Your task to perform on an android device: star an email in the gmail app Image 0: 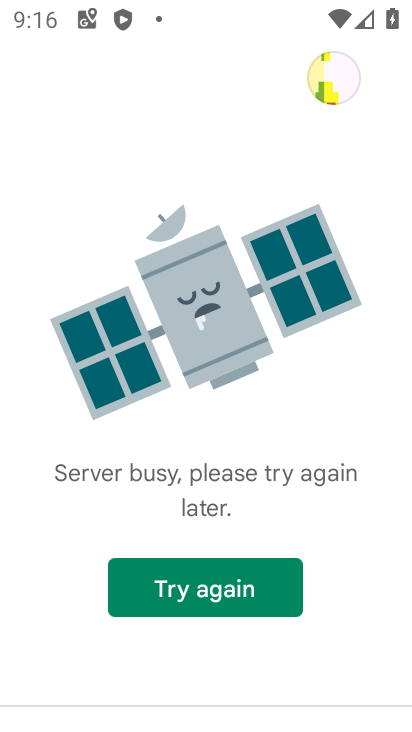
Step 0: press home button
Your task to perform on an android device: star an email in the gmail app Image 1: 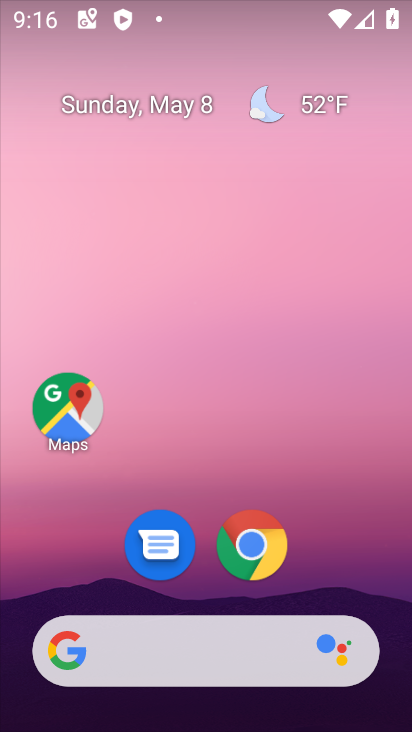
Step 1: drag from (203, 599) to (385, 34)
Your task to perform on an android device: star an email in the gmail app Image 2: 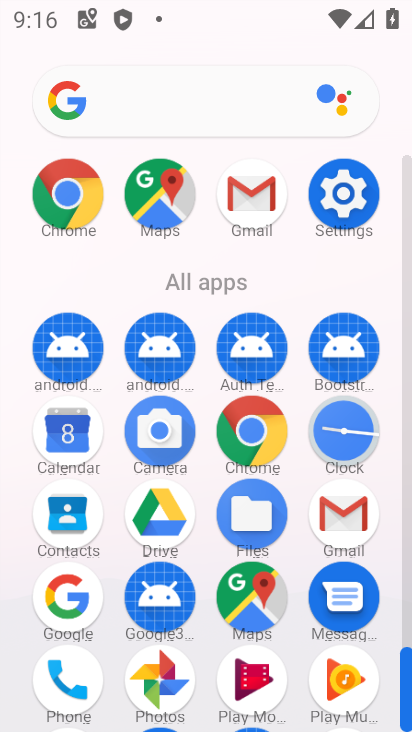
Step 2: click (353, 508)
Your task to perform on an android device: star an email in the gmail app Image 3: 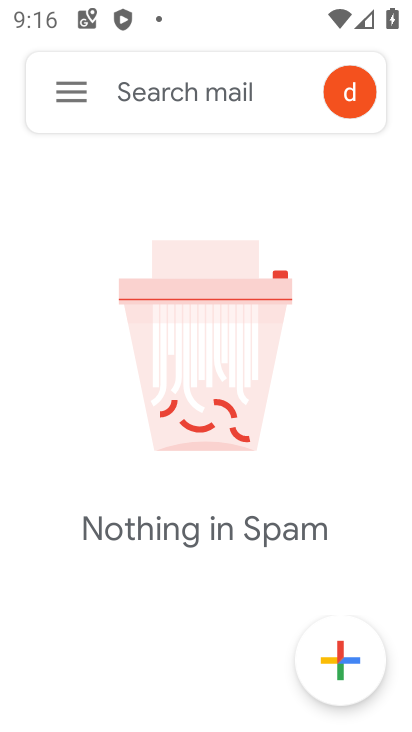
Step 3: click (57, 77)
Your task to perform on an android device: star an email in the gmail app Image 4: 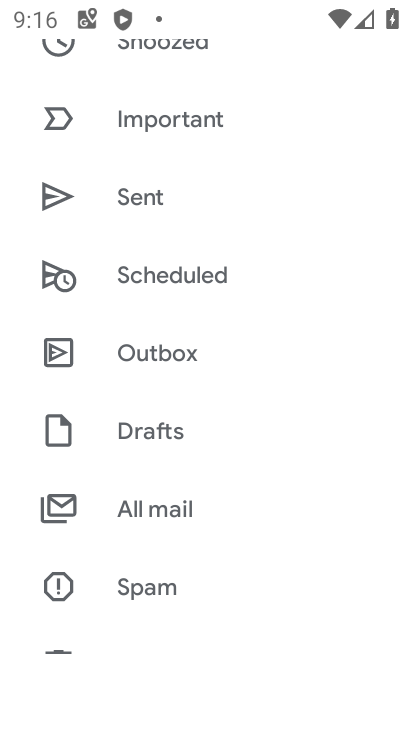
Step 4: drag from (147, 92) to (150, 697)
Your task to perform on an android device: star an email in the gmail app Image 5: 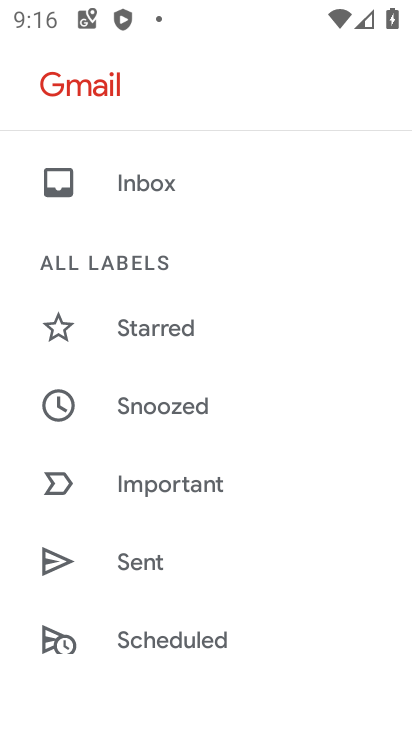
Step 5: click (136, 203)
Your task to perform on an android device: star an email in the gmail app Image 6: 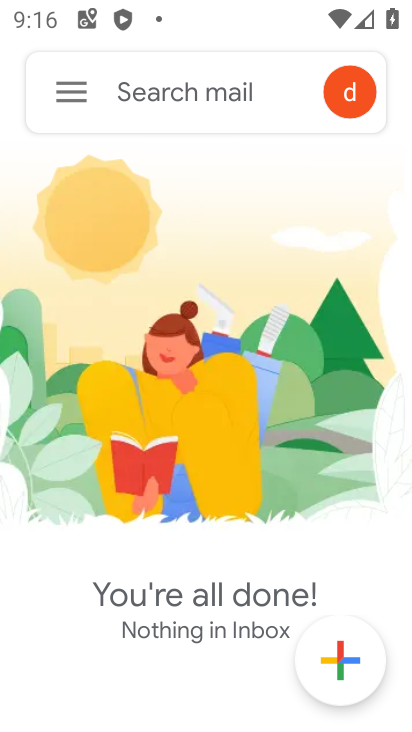
Step 6: drag from (206, 199) to (203, 679)
Your task to perform on an android device: star an email in the gmail app Image 7: 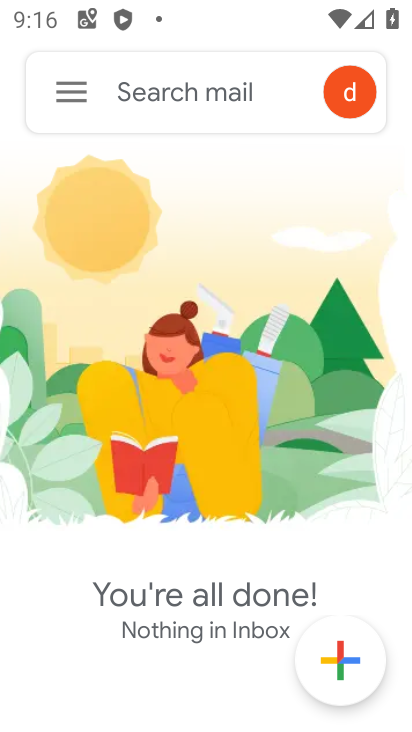
Step 7: click (79, 86)
Your task to perform on an android device: star an email in the gmail app Image 8: 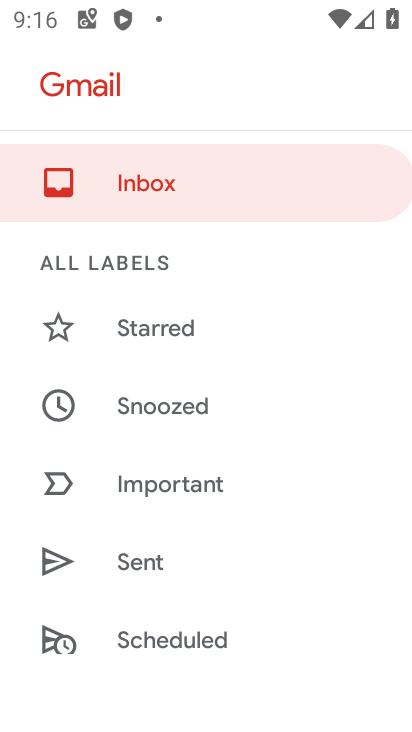
Step 8: drag from (191, 671) to (159, 43)
Your task to perform on an android device: star an email in the gmail app Image 9: 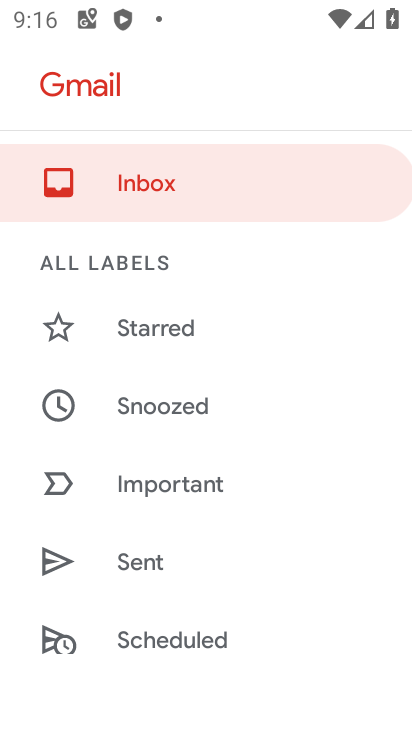
Step 9: drag from (159, 584) to (176, 104)
Your task to perform on an android device: star an email in the gmail app Image 10: 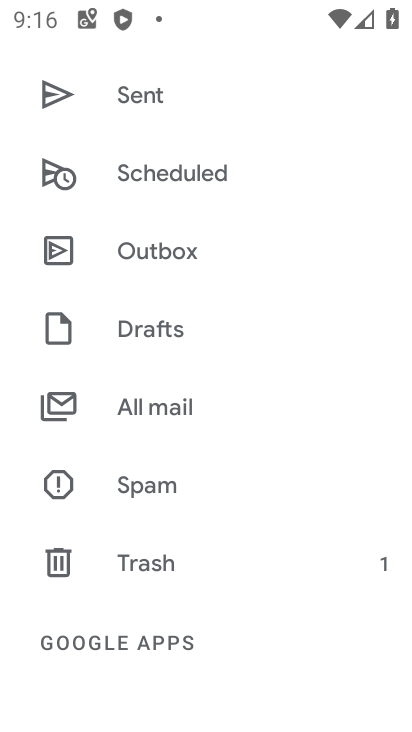
Step 10: click (146, 402)
Your task to perform on an android device: star an email in the gmail app Image 11: 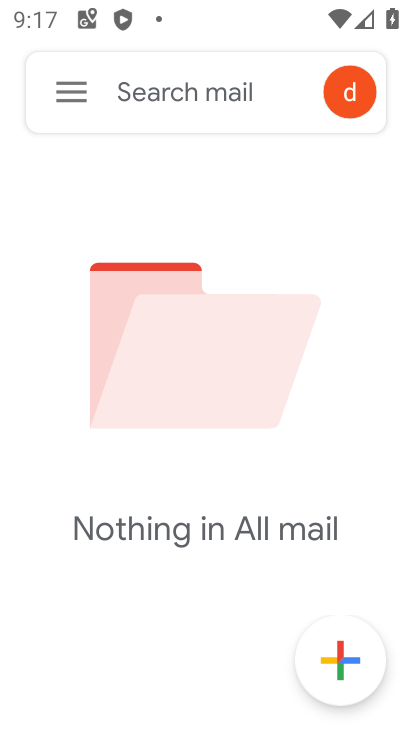
Step 11: task complete